Your task to perform on an android device: set the timer Image 0: 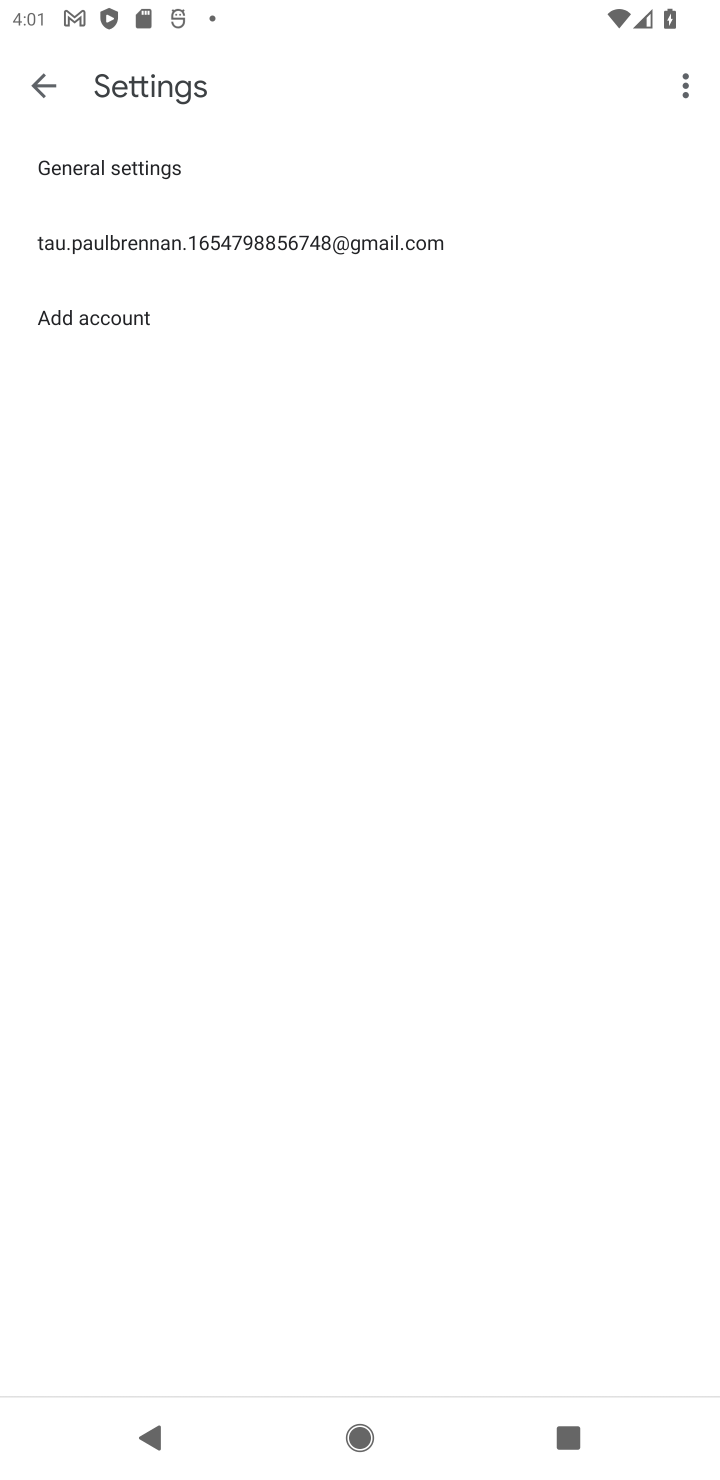
Step 0: press home button
Your task to perform on an android device: set the timer Image 1: 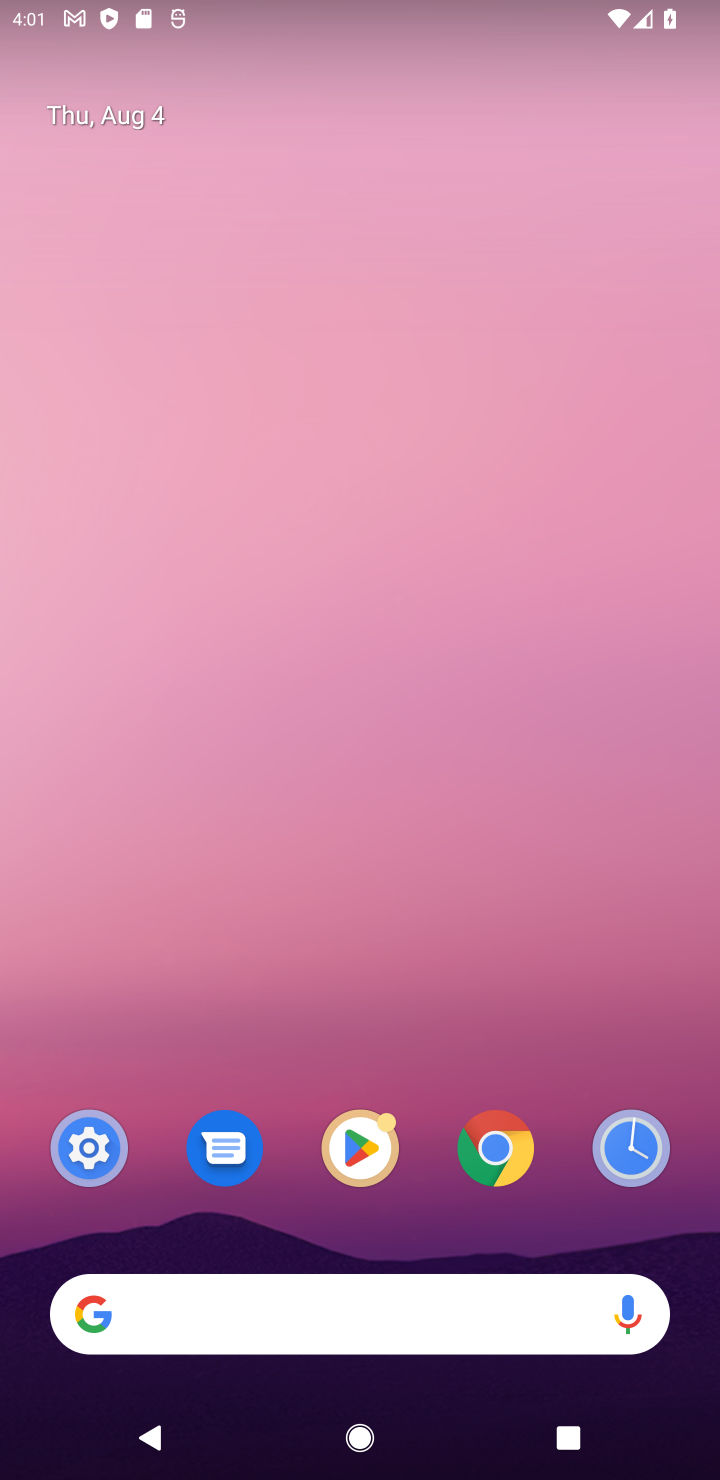
Step 1: click (633, 1150)
Your task to perform on an android device: set the timer Image 2: 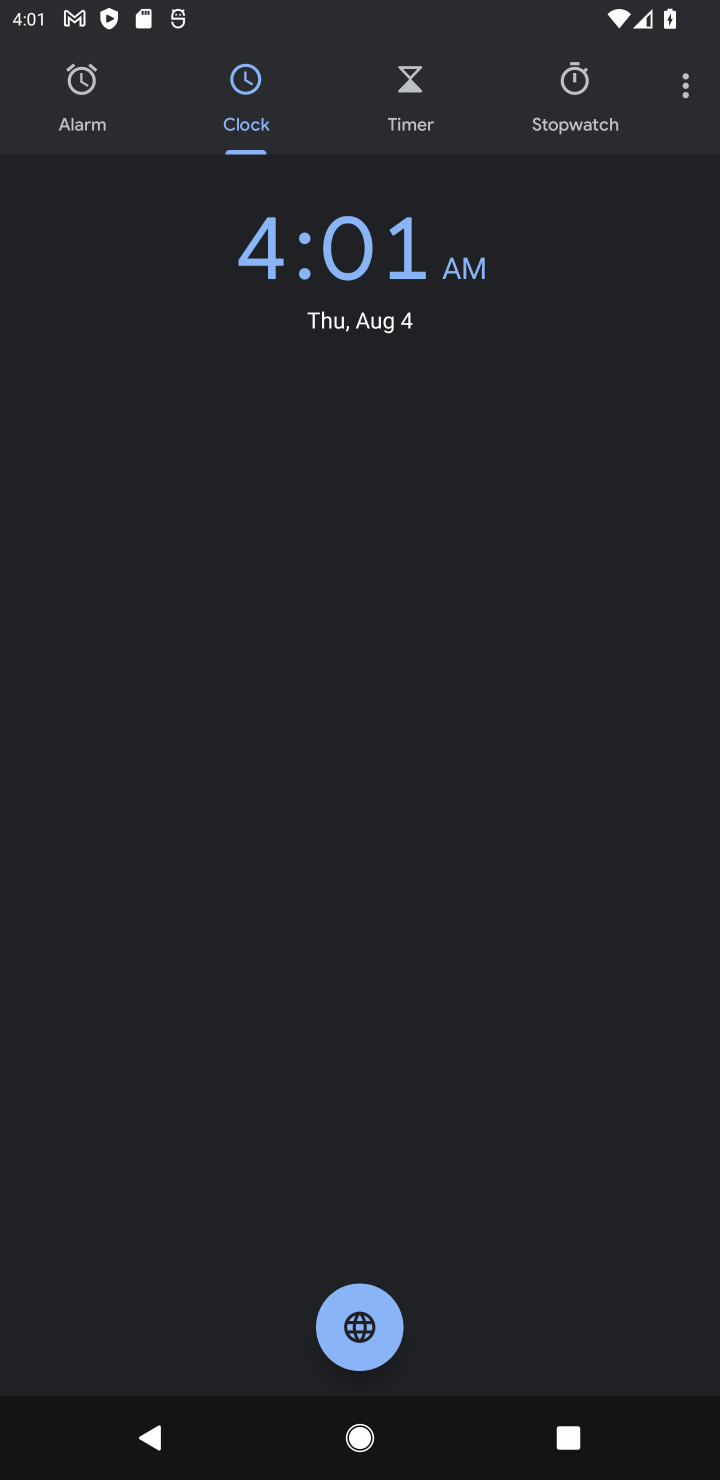
Step 2: click (407, 123)
Your task to perform on an android device: set the timer Image 3: 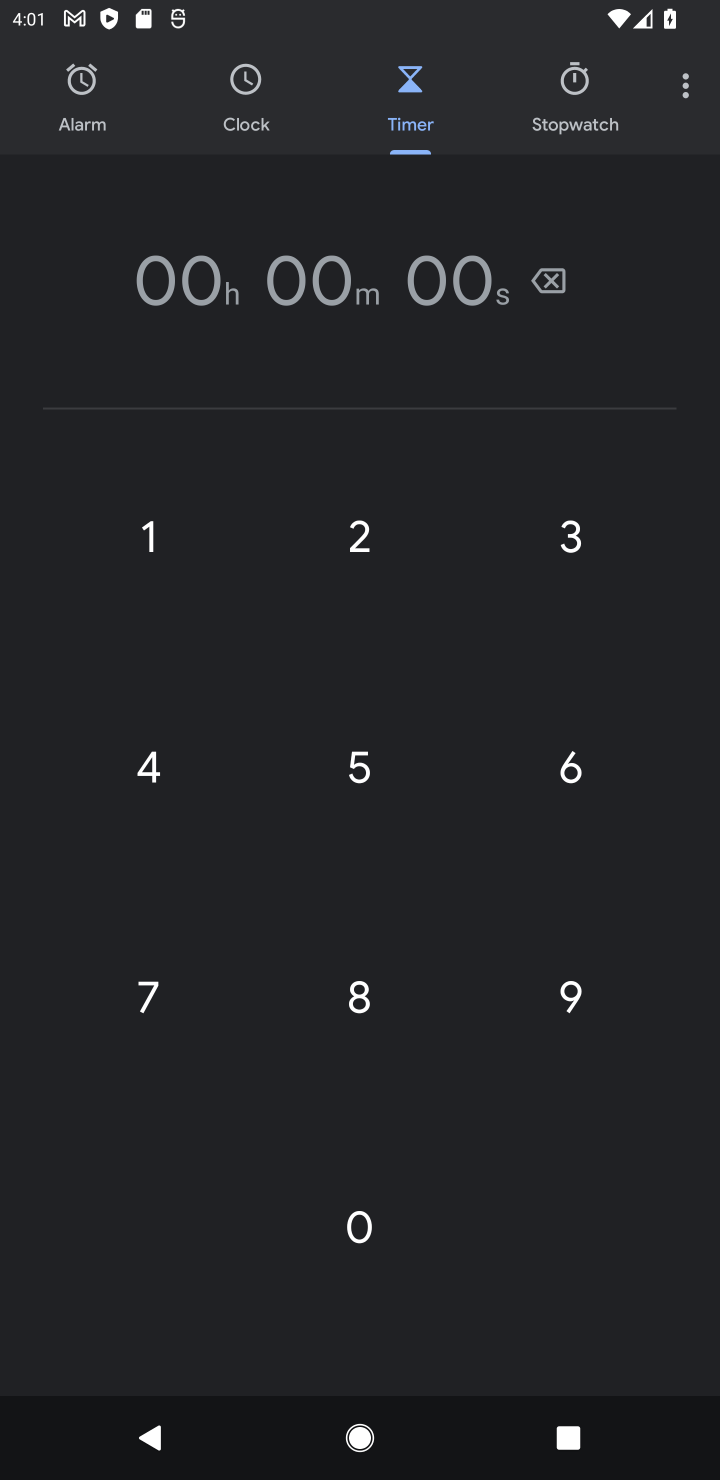
Step 3: click (142, 543)
Your task to perform on an android device: set the timer Image 4: 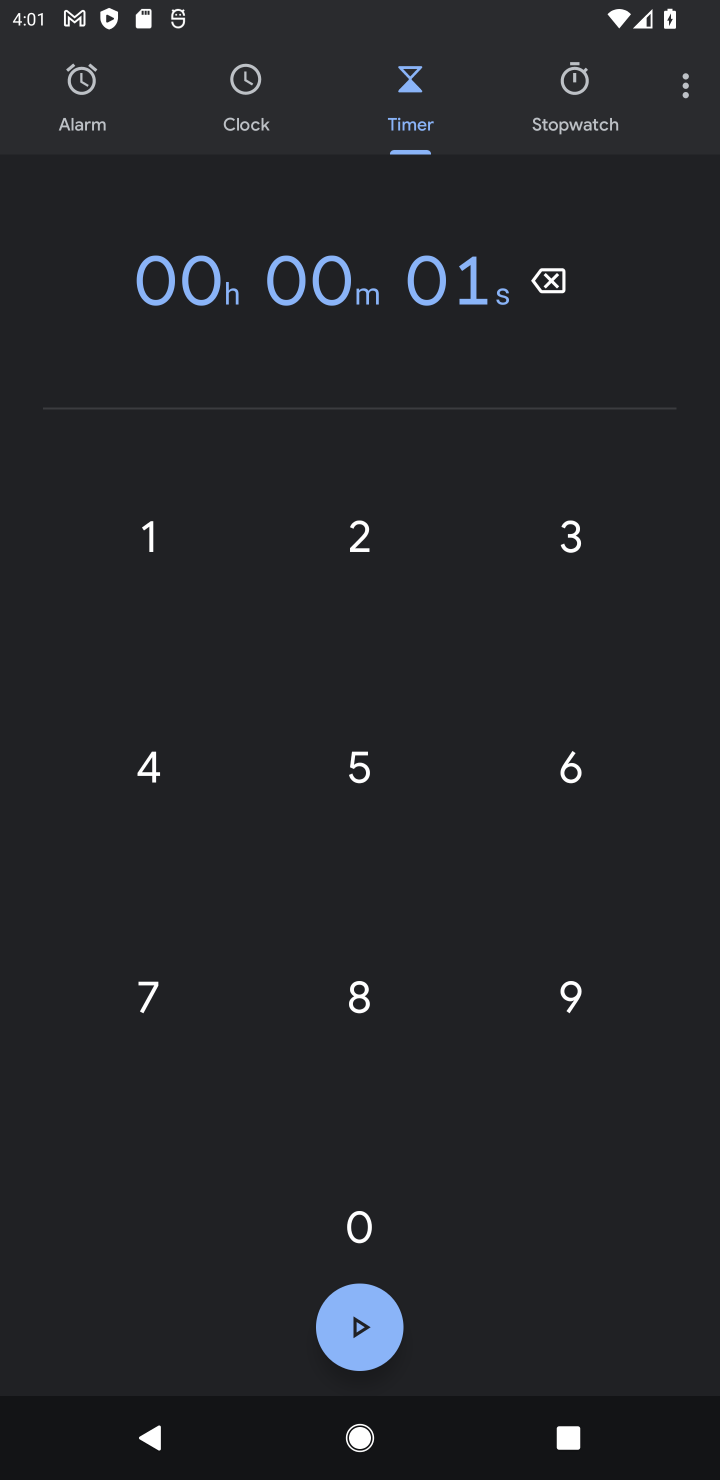
Step 4: click (564, 533)
Your task to perform on an android device: set the timer Image 5: 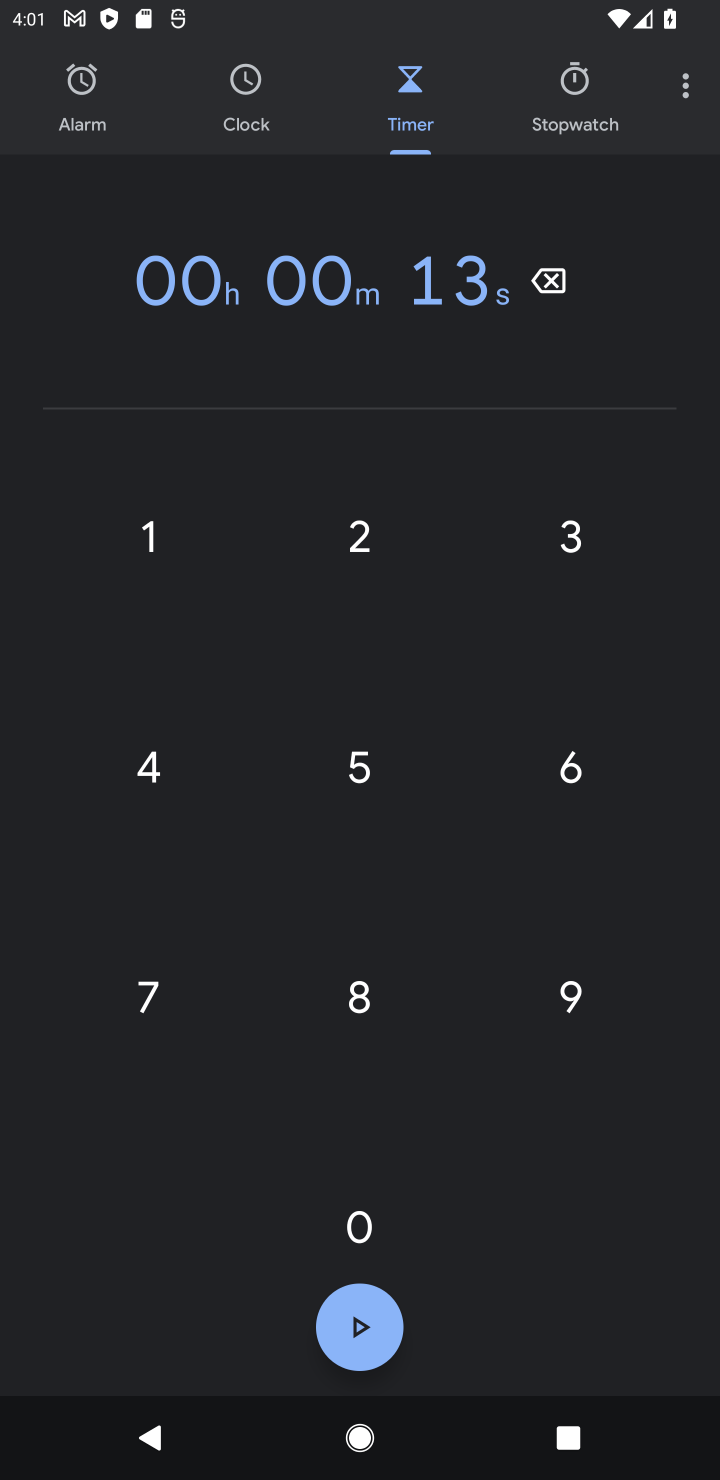
Step 5: click (352, 1219)
Your task to perform on an android device: set the timer Image 6: 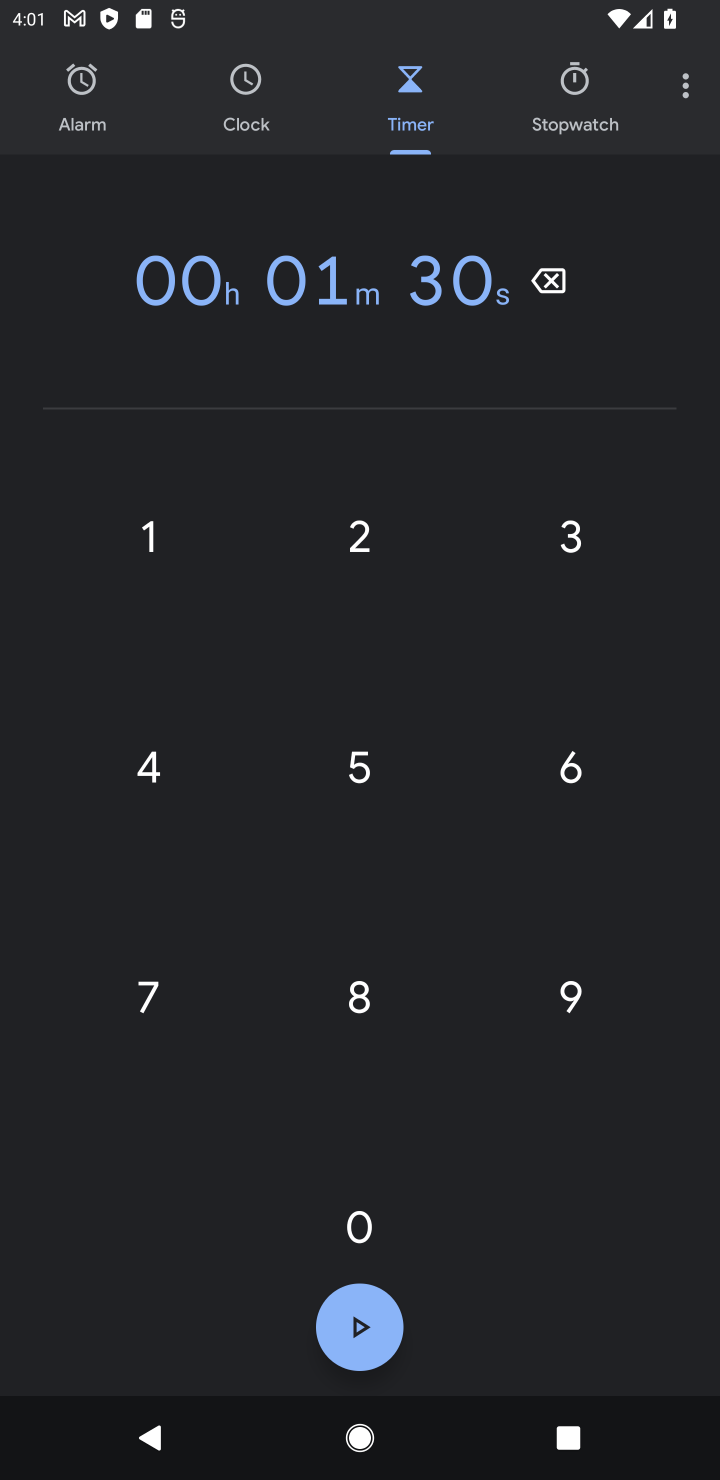
Step 6: click (352, 1219)
Your task to perform on an android device: set the timer Image 7: 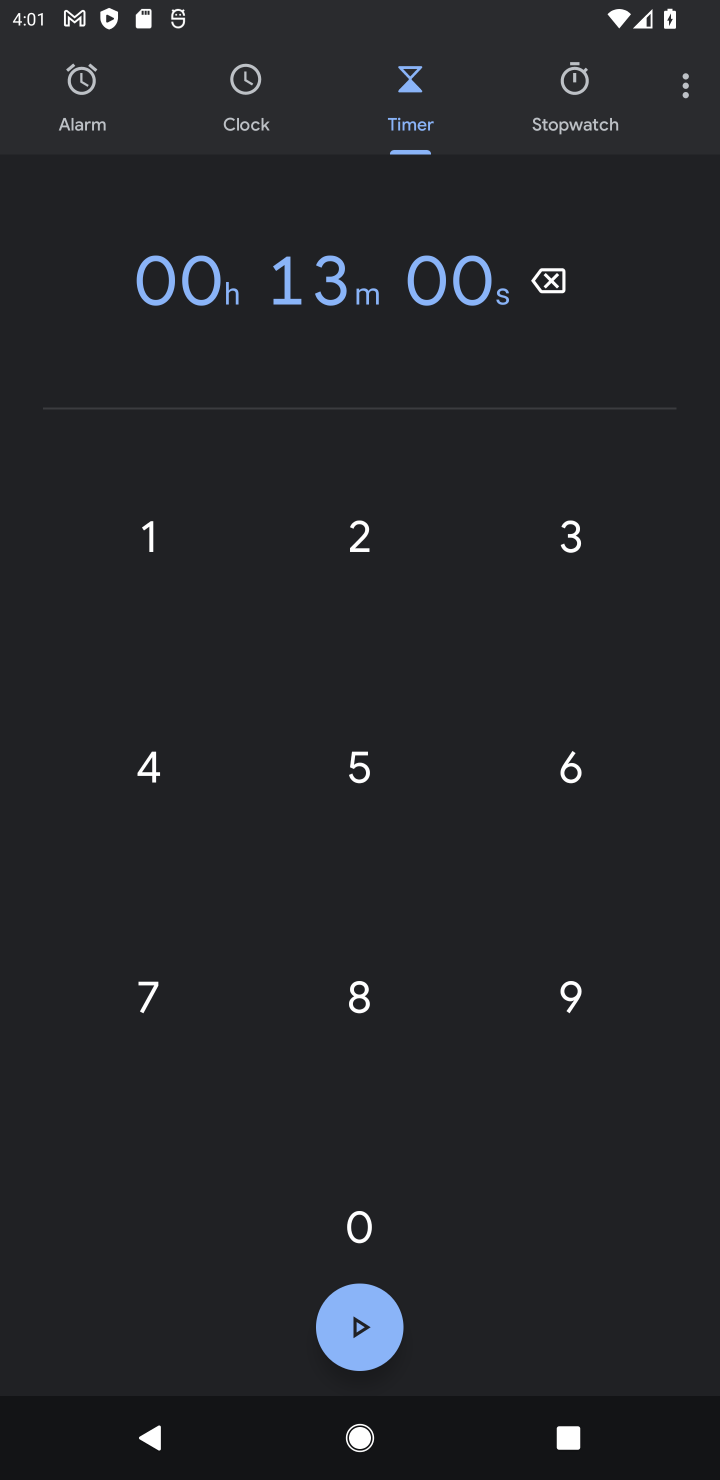
Step 7: click (352, 1219)
Your task to perform on an android device: set the timer Image 8: 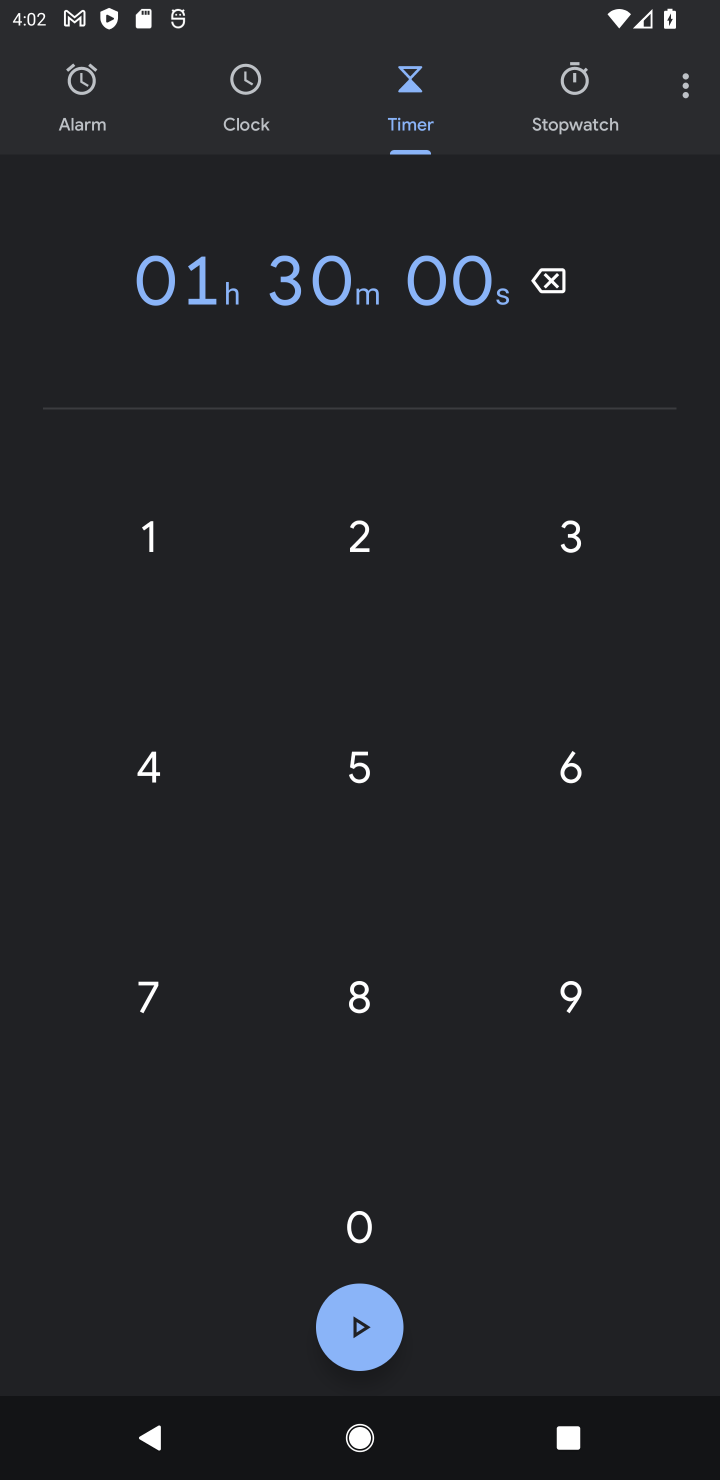
Step 8: task complete